Your task to perform on an android device: turn off translation in the chrome app Image 0: 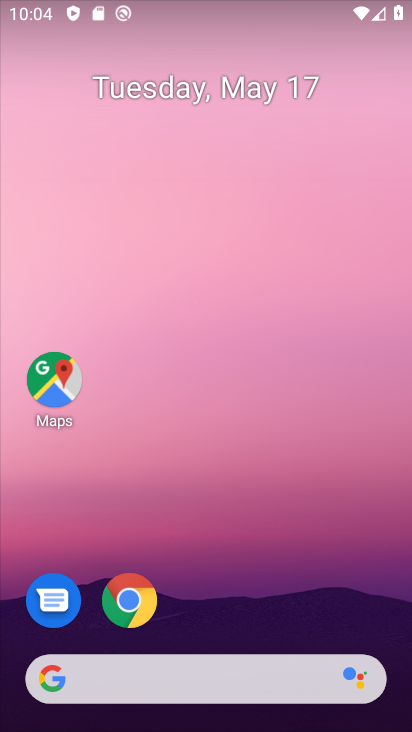
Step 0: drag from (303, 593) to (315, 86)
Your task to perform on an android device: turn off translation in the chrome app Image 1: 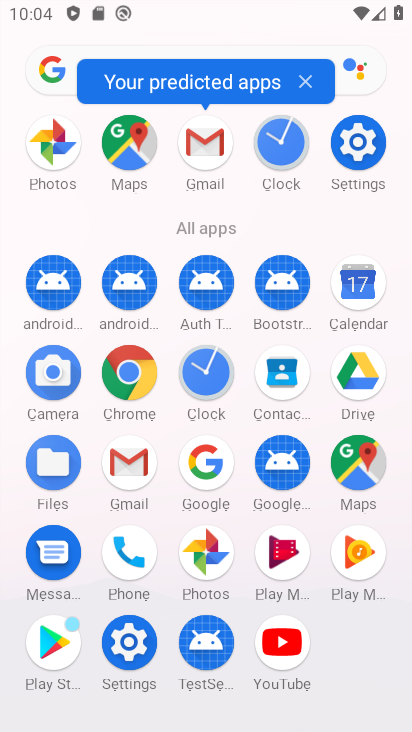
Step 1: click (135, 384)
Your task to perform on an android device: turn off translation in the chrome app Image 2: 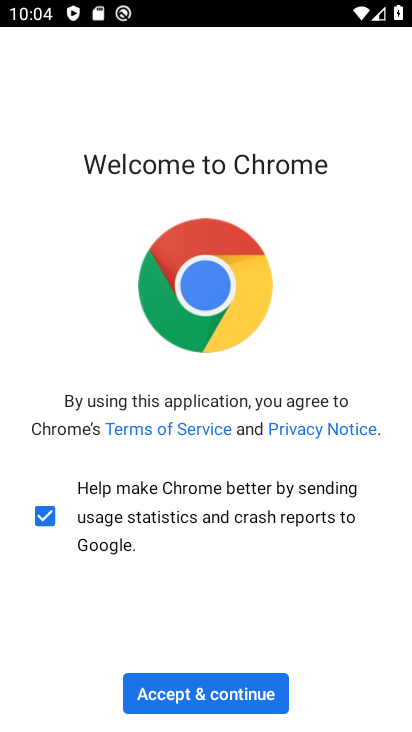
Step 2: click (196, 691)
Your task to perform on an android device: turn off translation in the chrome app Image 3: 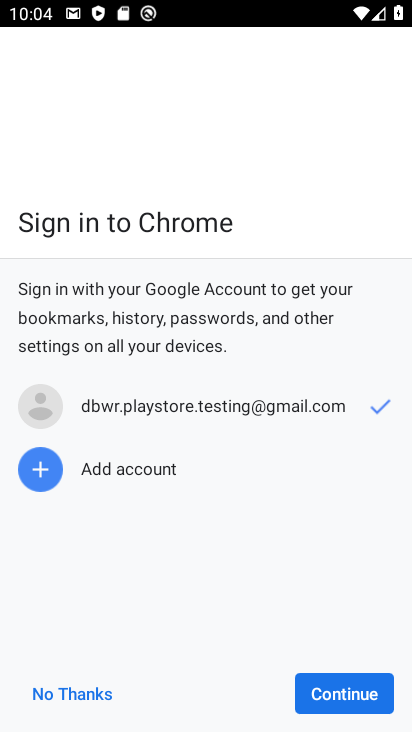
Step 3: click (312, 692)
Your task to perform on an android device: turn off translation in the chrome app Image 4: 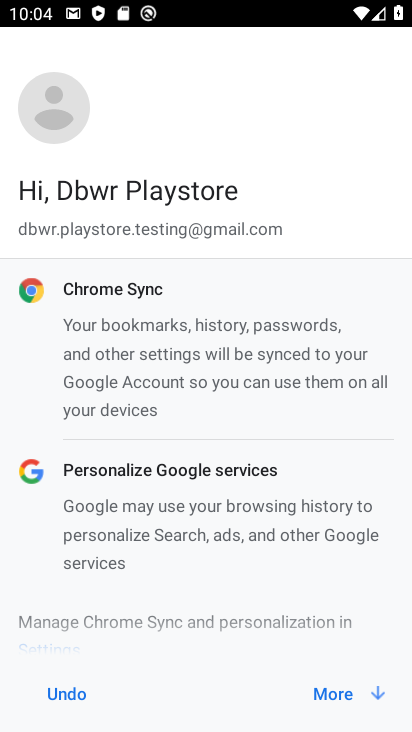
Step 4: click (313, 692)
Your task to perform on an android device: turn off translation in the chrome app Image 5: 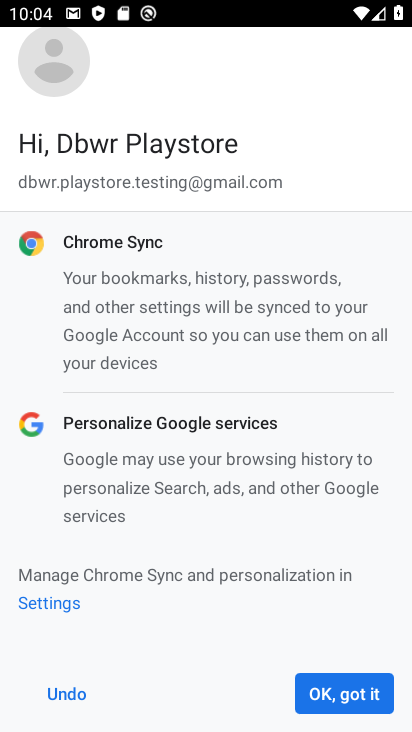
Step 5: click (313, 692)
Your task to perform on an android device: turn off translation in the chrome app Image 6: 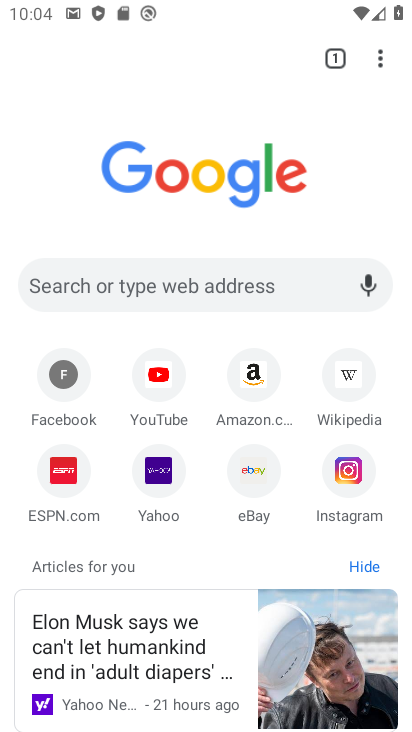
Step 6: click (380, 62)
Your task to perform on an android device: turn off translation in the chrome app Image 7: 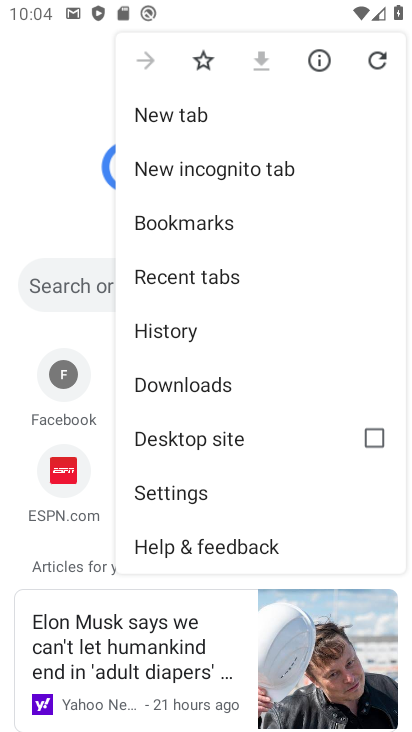
Step 7: click (205, 505)
Your task to perform on an android device: turn off translation in the chrome app Image 8: 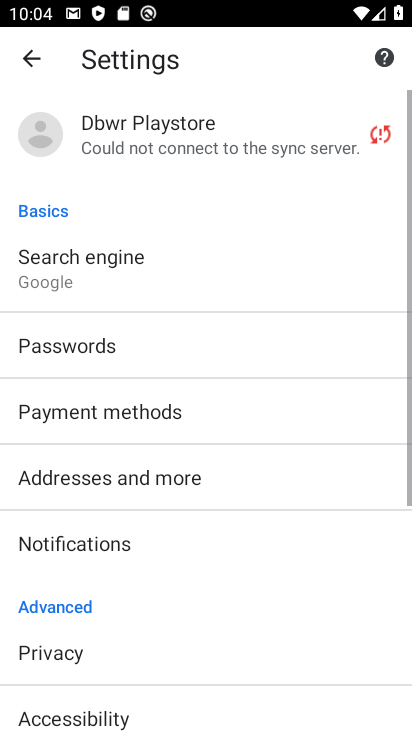
Step 8: drag from (287, 579) to (304, 482)
Your task to perform on an android device: turn off translation in the chrome app Image 9: 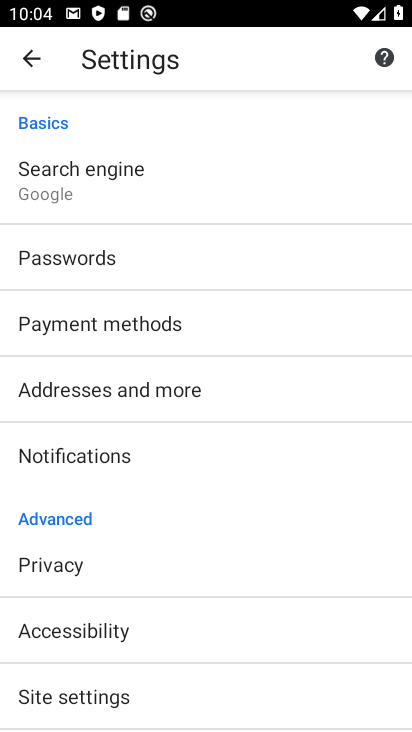
Step 9: drag from (310, 611) to (324, 522)
Your task to perform on an android device: turn off translation in the chrome app Image 10: 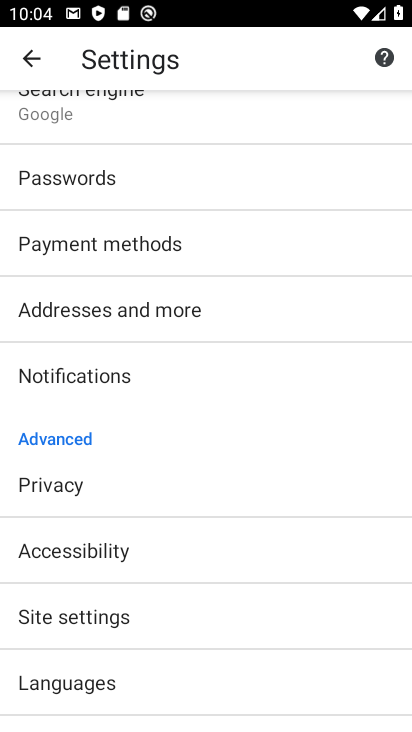
Step 10: drag from (336, 603) to (335, 501)
Your task to perform on an android device: turn off translation in the chrome app Image 11: 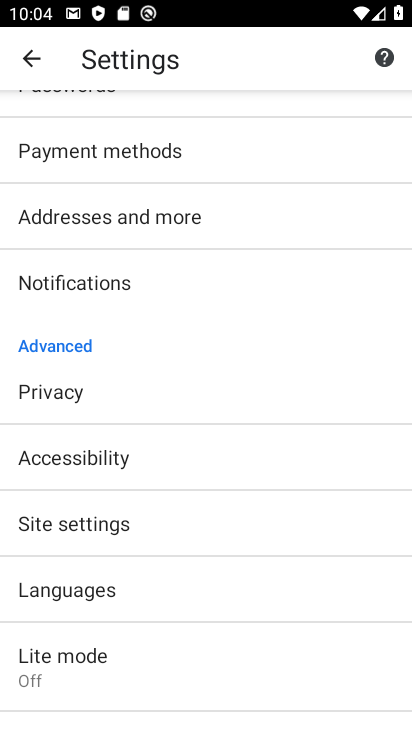
Step 11: drag from (330, 668) to (339, 535)
Your task to perform on an android device: turn off translation in the chrome app Image 12: 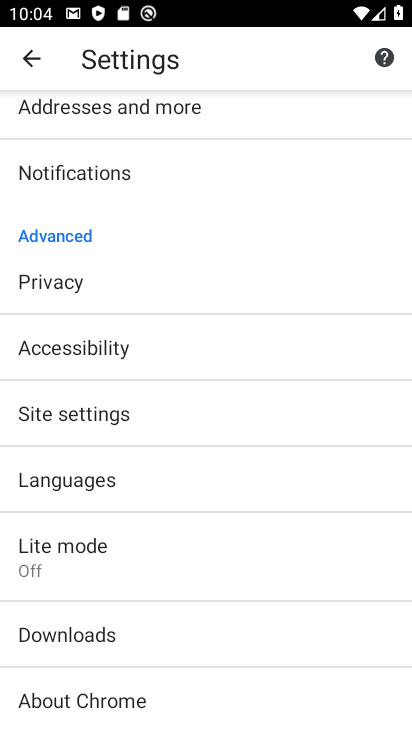
Step 12: drag from (324, 670) to (325, 550)
Your task to perform on an android device: turn off translation in the chrome app Image 13: 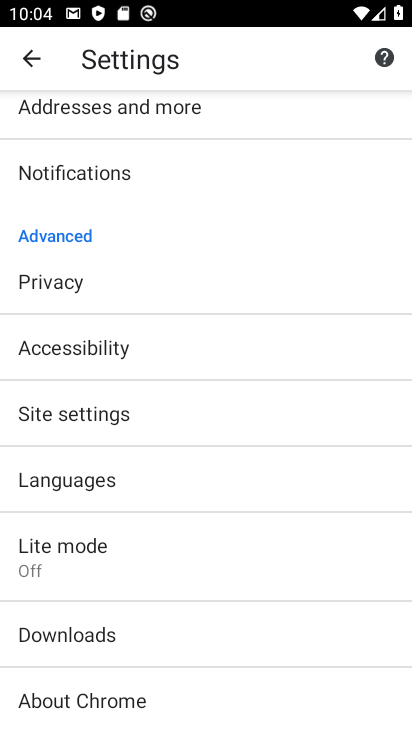
Step 13: click (248, 485)
Your task to perform on an android device: turn off translation in the chrome app Image 14: 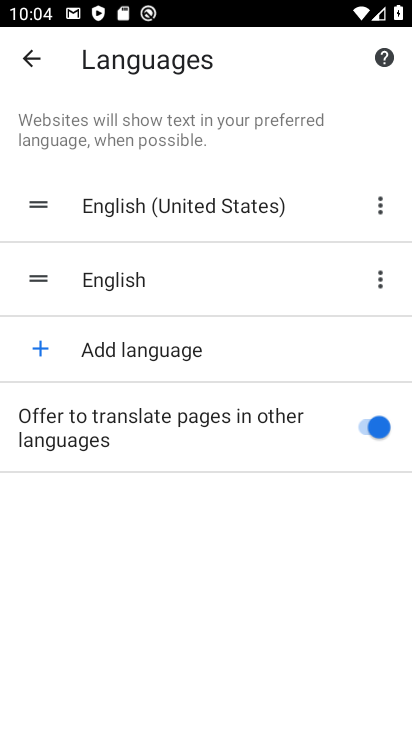
Step 14: click (366, 430)
Your task to perform on an android device: turn off translation in the chrome app Image 15: 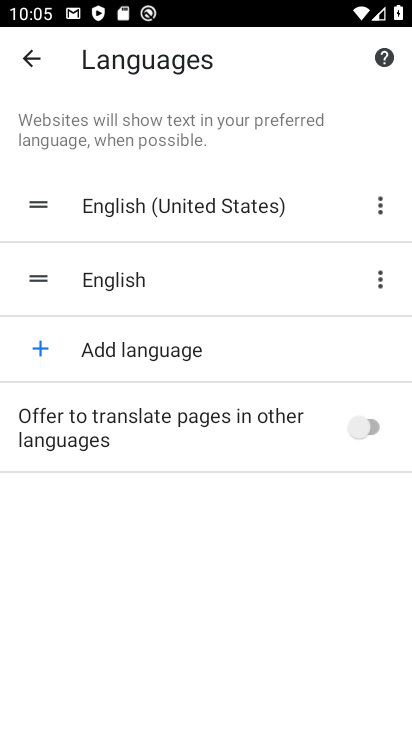
Step 15: task complete